Your task to perform on an android device: change alarm snooze length Image 0: 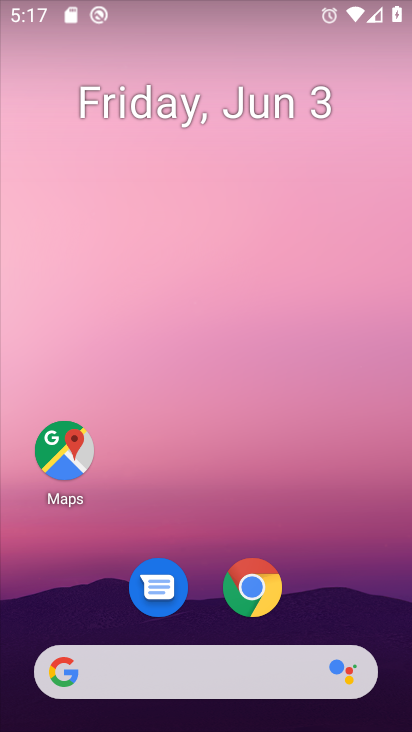
Step 0: drag from (161, 727) to (215, 79)
Your task to perform on an android device: change alarm snooze length Image 1: 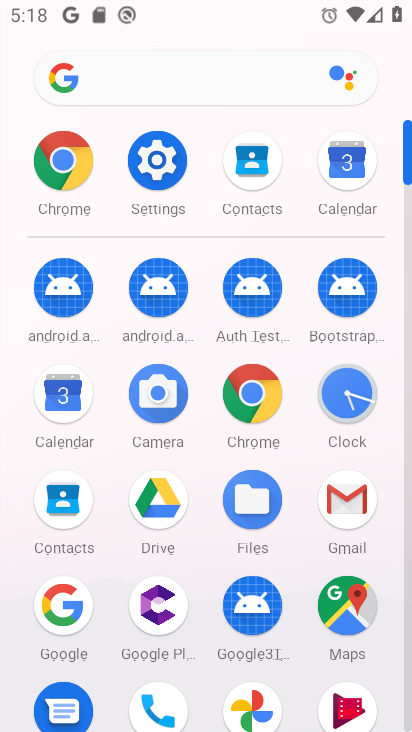
Step 1: click (348, 384)
Your task to perform on an android device: change alarm snooze length Image 2: 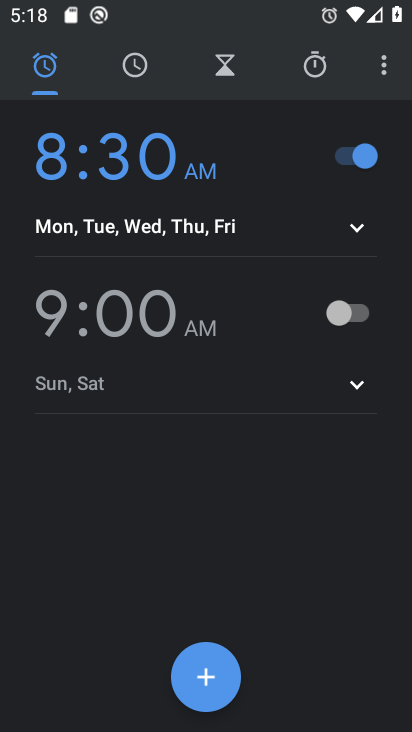
Step 2: click (388, 81)
Your task to perform on an android device: change alarm snooze length Image 3: 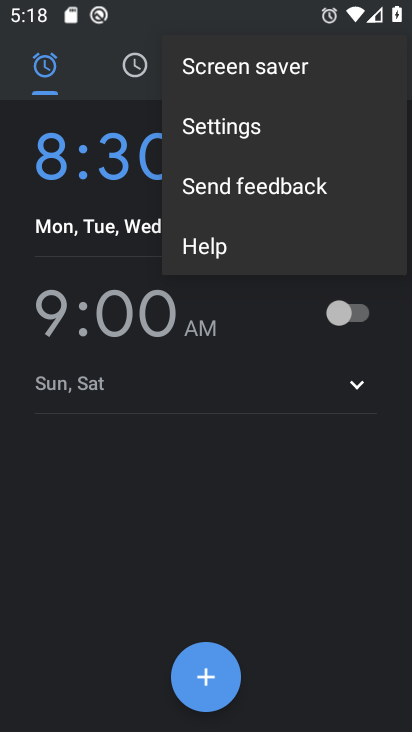
Step 3: click (232, 131)
Your task to perform on an android device: change alarm snooze length Image 4: 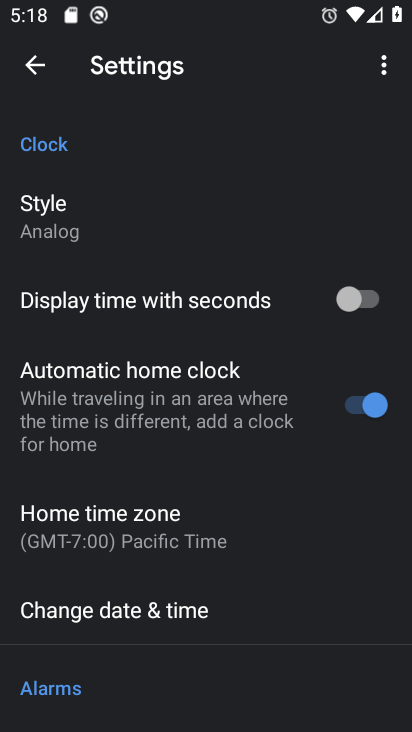
Step 4: drag from (228, 679) to (247, 289)
Your task to perform on an android device: change alarm snooze length Image 5: 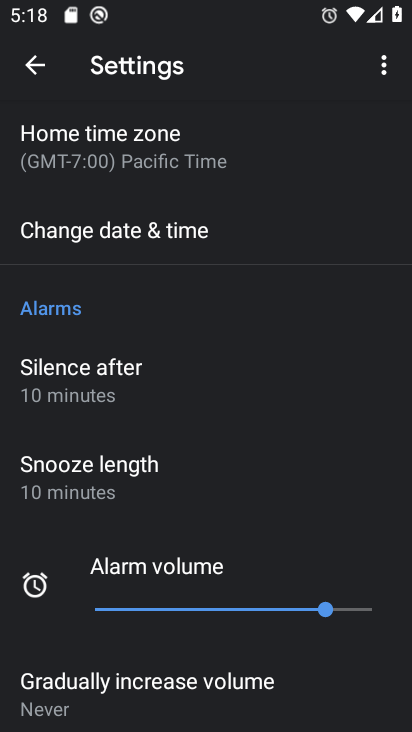
Step 5: click (96, 472)
Your task to perform on an android device: change alarm snooze length Image 6: 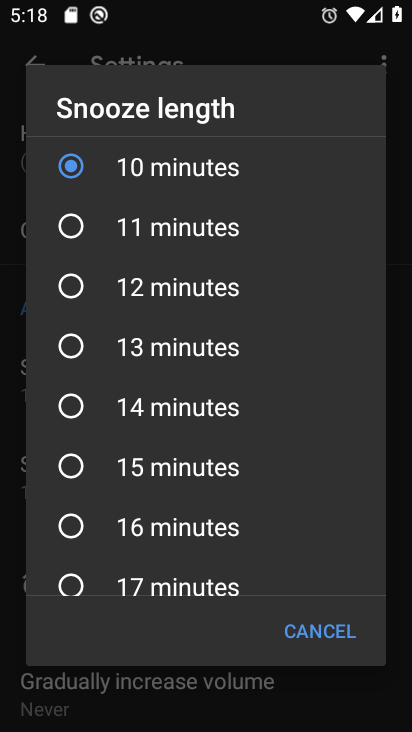
Step 6: click (163, 297)
Your task to perform on an android device: change alarm snooze length Image 7: 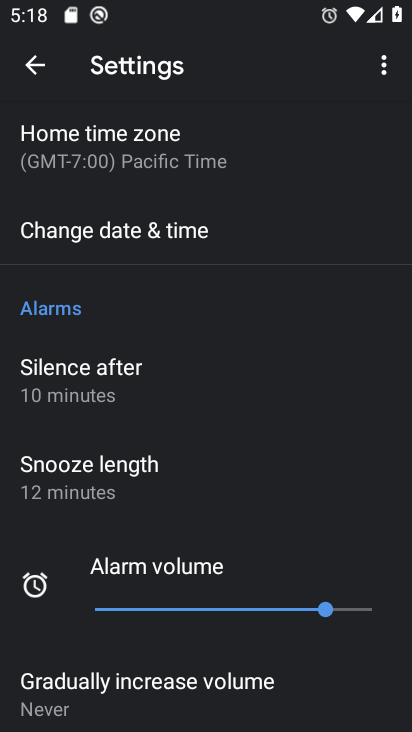
Step 7: task complete